Your task to perform on an android device: Open CNN.com Image 0: 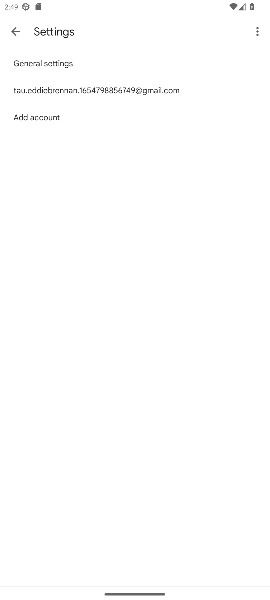
Step 0: press home button
Your task to perform on an android device: Open CNN.com Image 1: 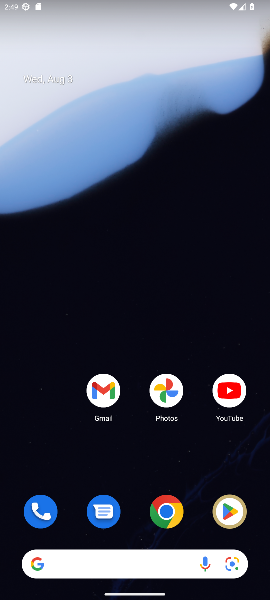
Step 1: drag from (191, 475) to (191, 408)
Your task to perform on an android device: Open CNN.com Image 2: 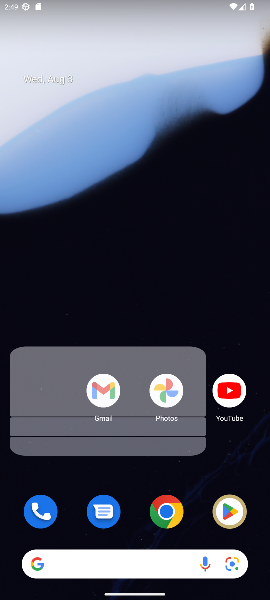
Step 2: click (229, 21)
Your task to perform on an android device: Open CNN.com Image 3: 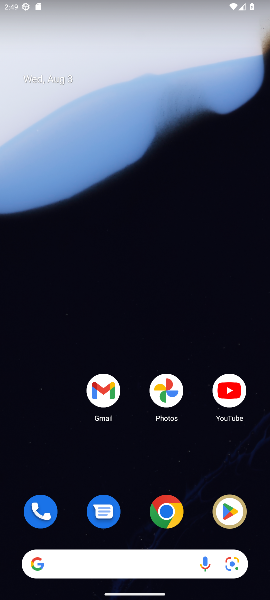
Step 3: click (167, 508)
Your task to perform on an android device: Open CNN.com Image 4: 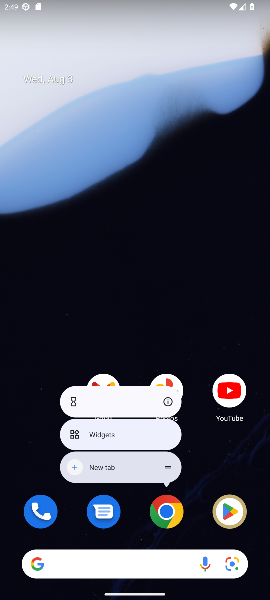
Step 4: press home button
Your task to perform on an android device: Open CNN.com Image 5: 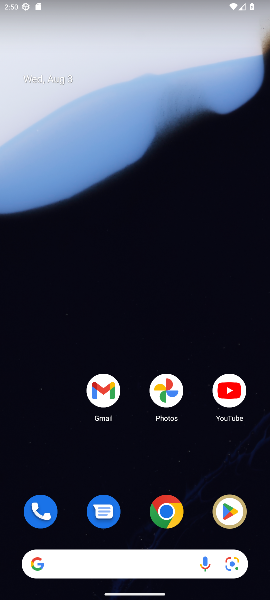
Step 5: click (164, 511)
Your task to perform on an android device: Open CNN.com Image 6: 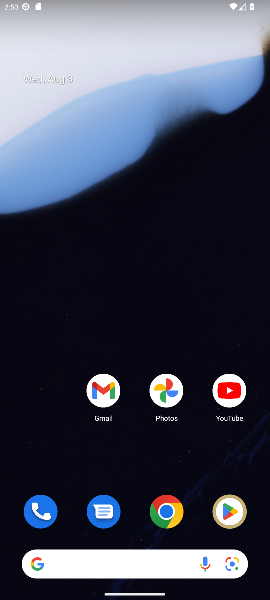
Step 6: click (164, 511)
Your task to perform on an android device: Open CNN.com Image 7: 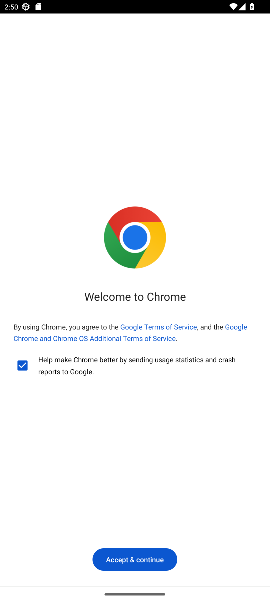
Step 7: click (123, 556)
Your task to perform on an android device: Open CNN.com Image 8: 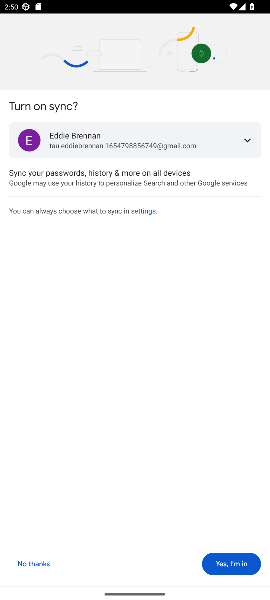
Step 8: click (240, 563)
Your task to perform on an android device: Open CNN.com Image 9: 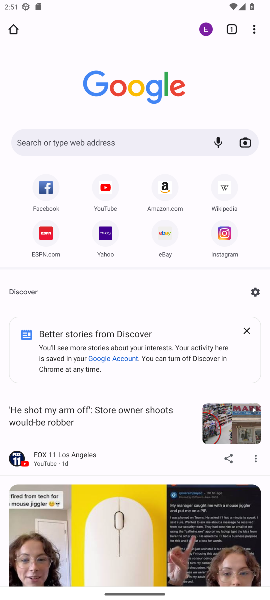
Step 9: type " CNN.com"
Your task to perform on an android device: Open CNN.com Image 10: 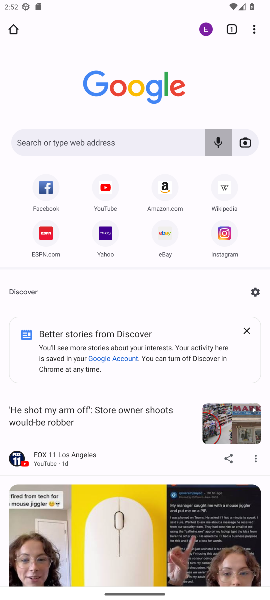
Step 10: click (134, 148)
Your task to perform on an android device: Open CNN.com Image 11: 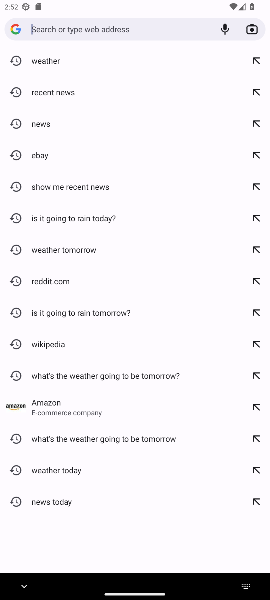
Step 11: type "CNN.com"
Your task to perform on an android device: Open CNN.com Image 12: 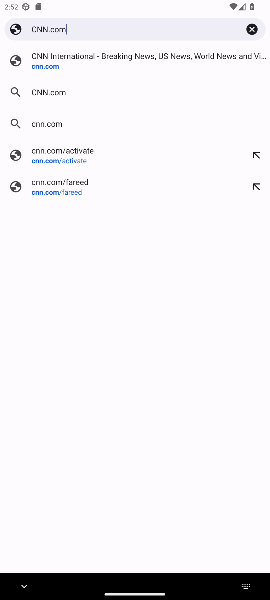
Step 12: click (45, 64)
Your task to perform on an android device: Open CNN.com Image 13: 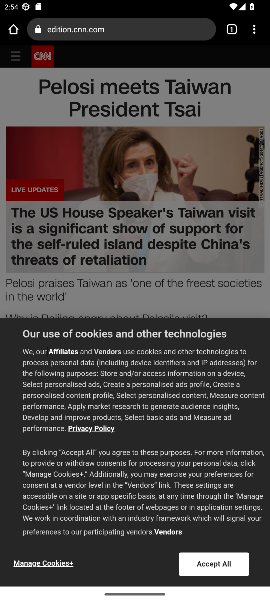
Step 13: task complete